Your task to perform on an android device: turn off smart reply in the gmail app Image 0: 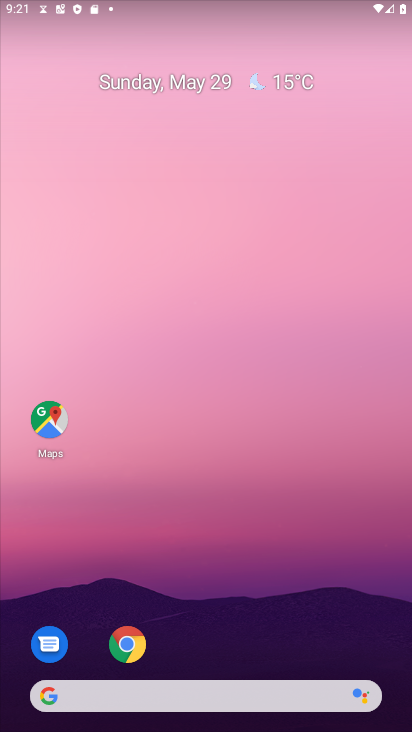
Step 0: drag from (182, 688) to (115, 50)
Your task to perform on an android device: turn off smart reply in the gmail app Image 1: 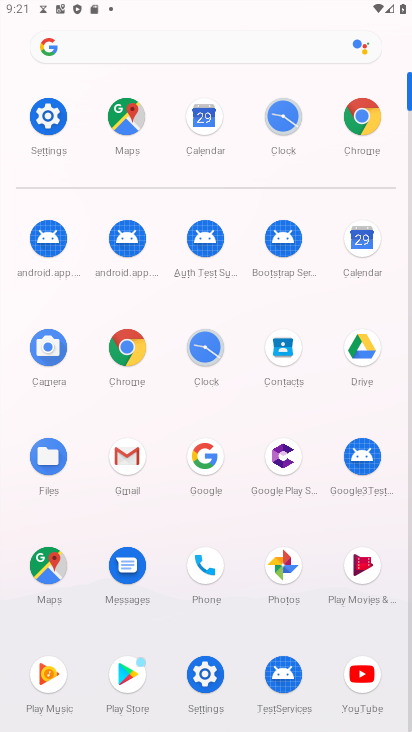
Step 1: click (138, 467)
Your task to perform on an android device: turn off smart reply in the gmail app Image 2: 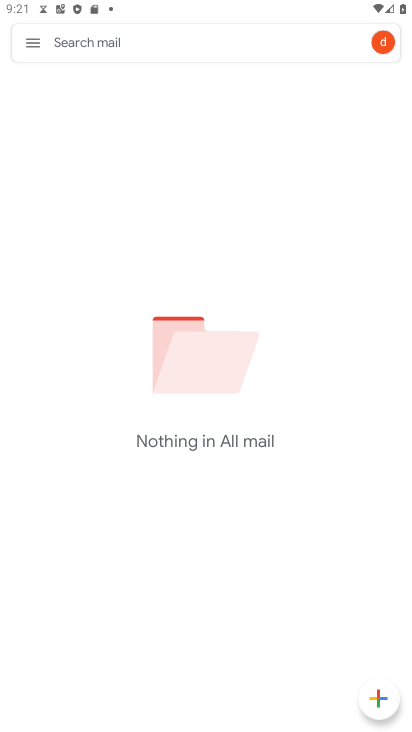
Step 2: click (38, 43)
Your task to perform on an android device: turn off smart reply in the gmail app Image 3: 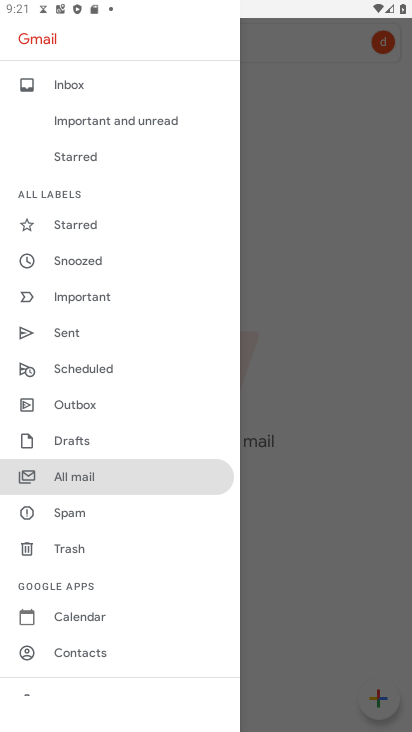
Step 3: drag from (127, 647) to (180, 196)
Your task to perform on an android device: turn off smart reply in the gmail app Image 4: 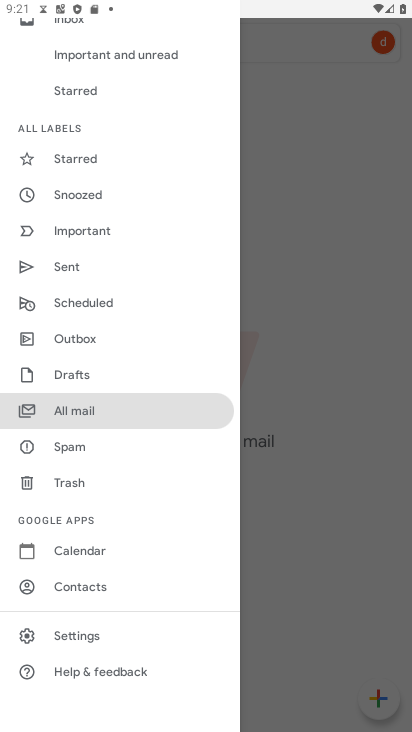
Step 4: click (70, 632)
Your task to perform on an android device: turn off smart reply in the gmail app Image 5: 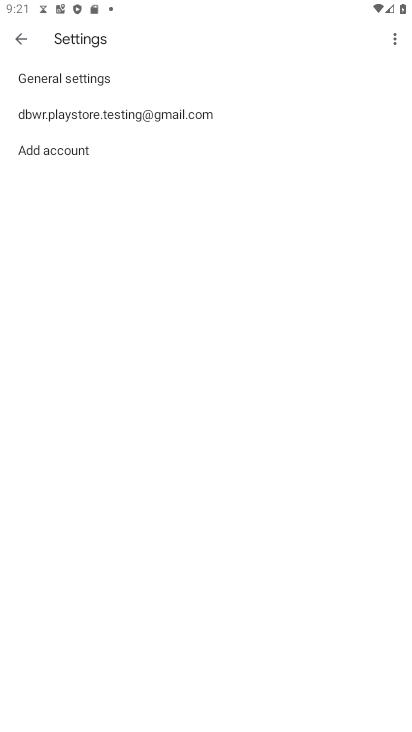
Step 5: click (115, 115)
Your task to perform on an android device: turn off smart reply in the gmail app Image 6: 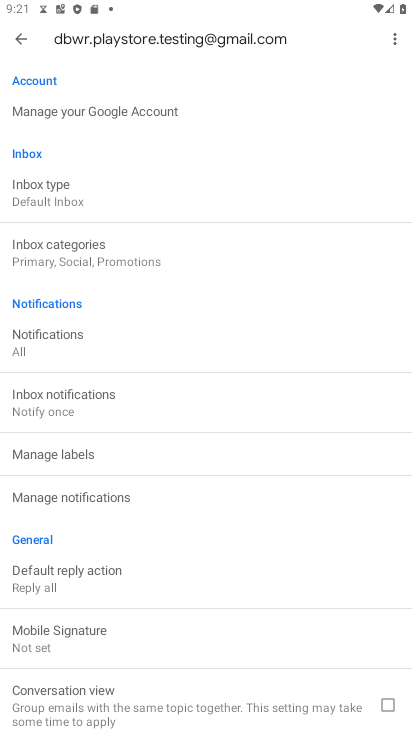
Step 6: drag from (202, 637) to (252, 65)
Your task to perform on an android device: turn off smart reply in the gmail app Image 7: 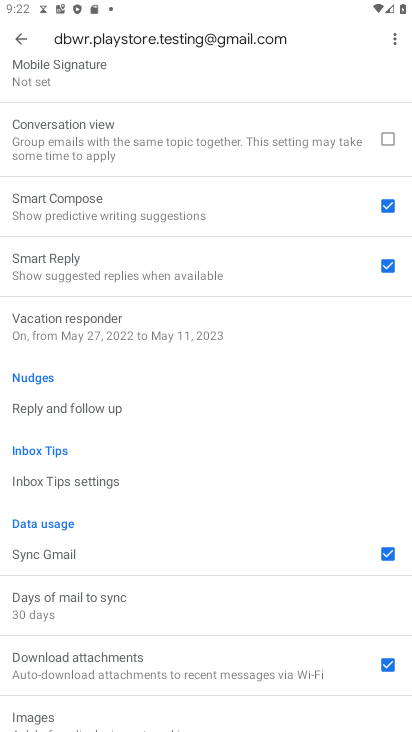
Step 7: click (380, 269)
Your task to perform on an android device: turn off smart reply in the gmail app Image 8: 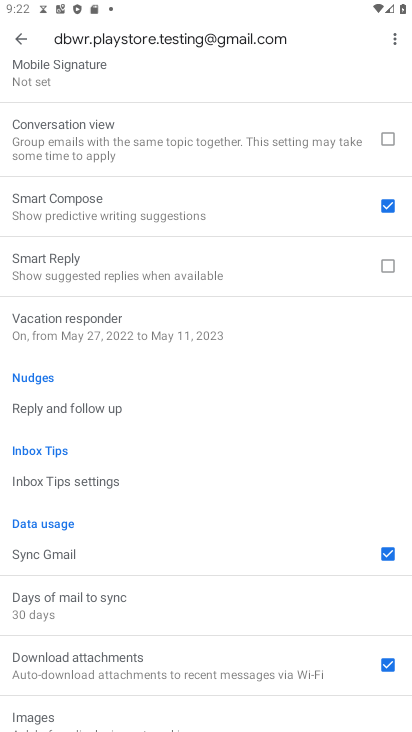
Step 8: task complete